Your task to perform on an android device: see sites visited before in the chrome app Image 0: 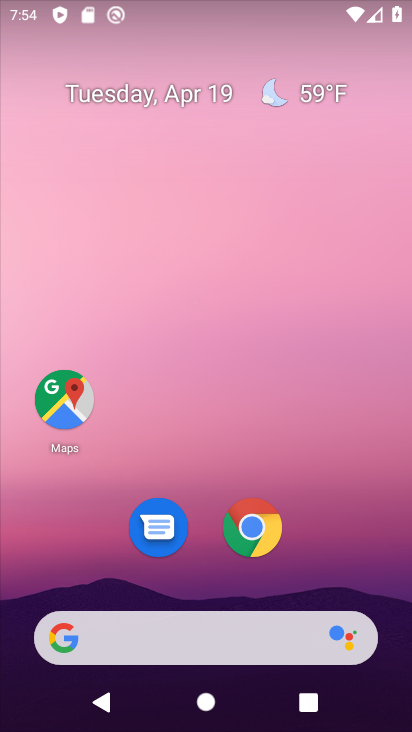
Step 0: click (251, 534)
Your task to perform on an android device: see sites visited before in the chrome app Image 1: 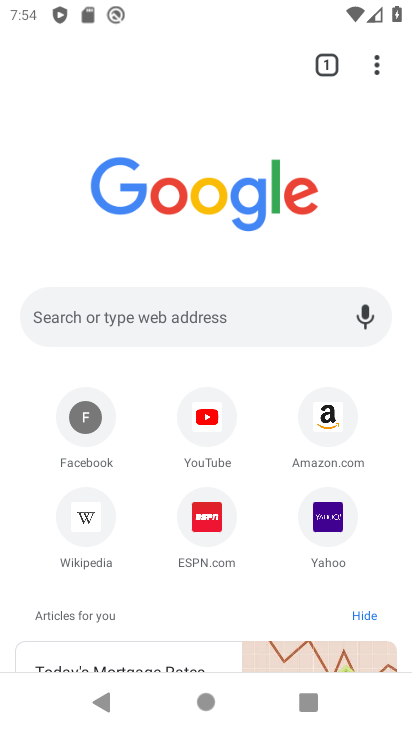
Step 1: click (372, 65)
Your task to perform on an android device: see sites visited before in the chrome app Image 2: 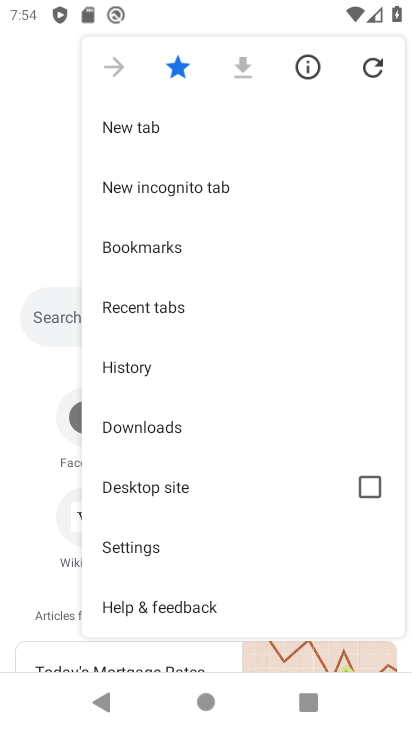
Step 2: click (183, 307)
Your task to perform on an android device: see sites visited before in the chrome app Image 3: 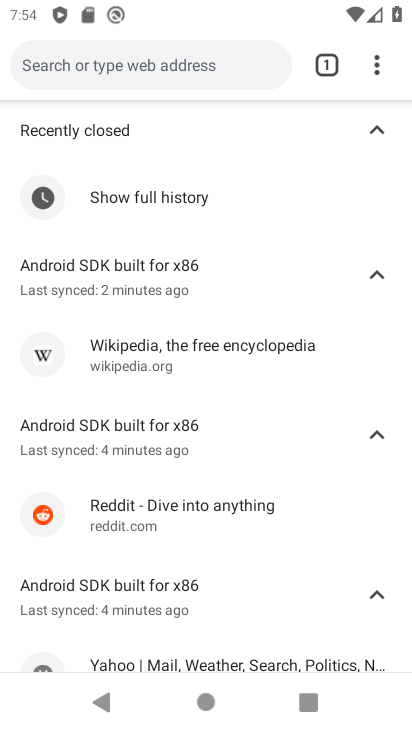
Step 3: task complete